Your task to perform on an android device: Open display settings Image 0: 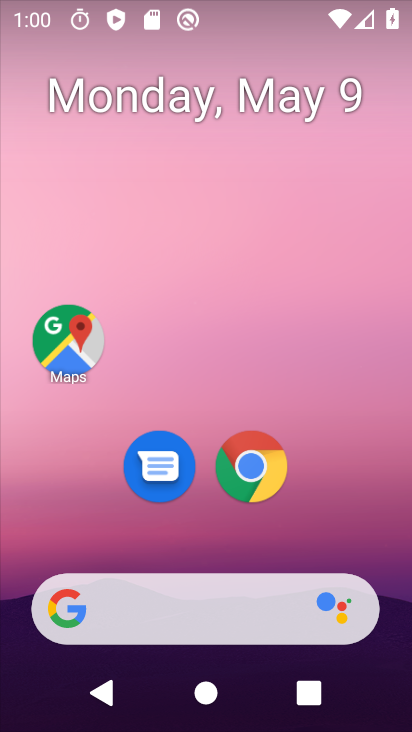
Step 0: drag from (221, 571) to (263, 120)
Your task to perform on an android device: Open display settings Image 1: 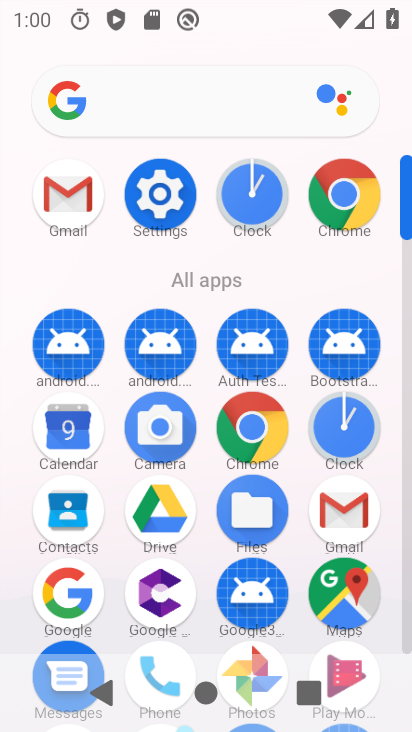
Step 1: click (176, 200)
Your task to perform on an android device: Open display settings Image 2: 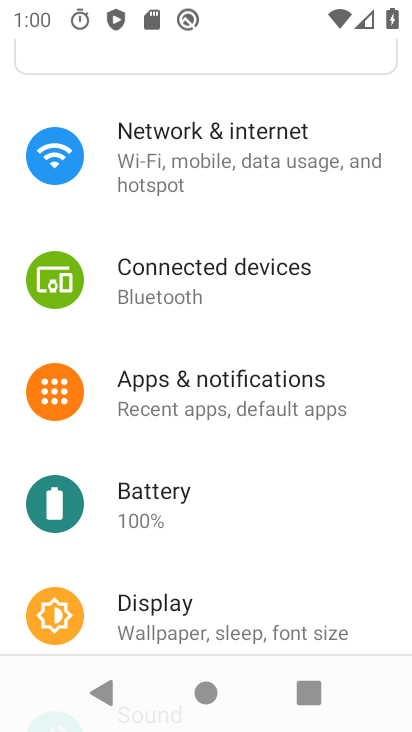
Step 2: drag from (186, 448) to (203, 337)
Your task to perform on an android device: Open display settings Image 3: 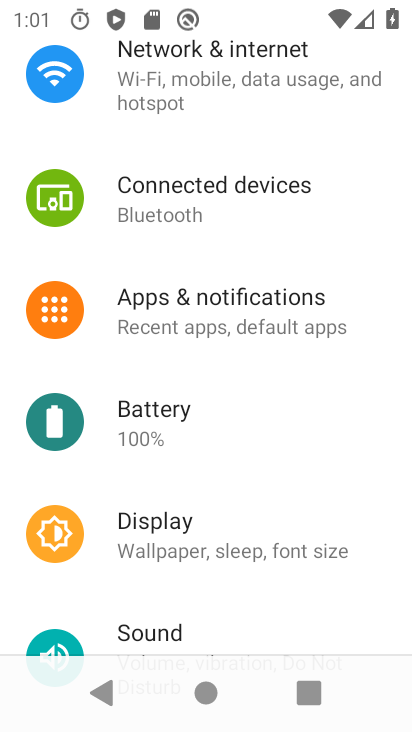
Step 3: click (212, 539)
Your task to perform on an android device: Open display settings Image 4: 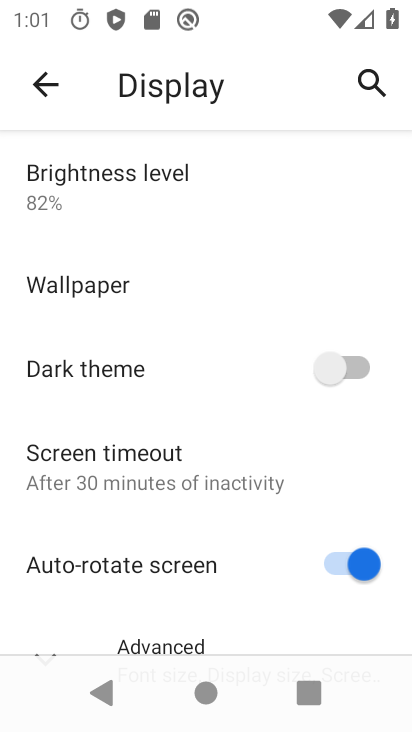
Step 4: task complete